Your task to perform on an android device: Turn off the flashlight Image 0: 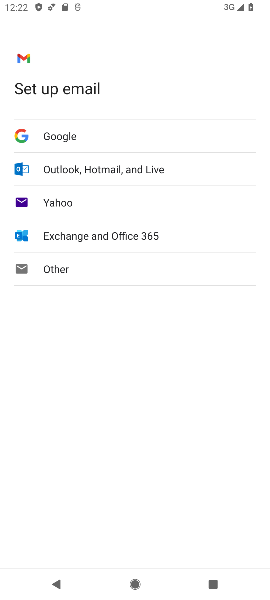
Step 0: drag from (155, 4) to (147, 304)
Your task to perform on an android device: Turn off the flashlight Image 1: 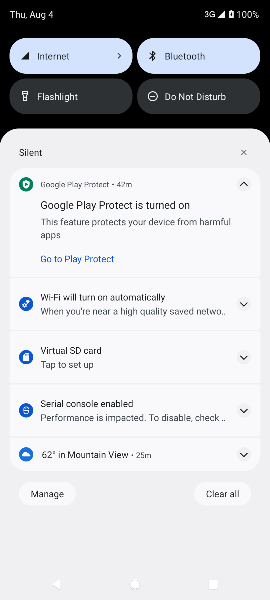
Step 1: task complete